Your task to perform on an android device: Open internet settings Image 0: 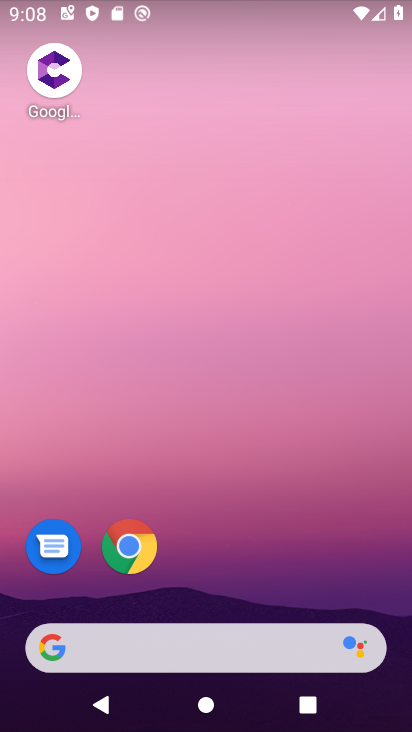
Step 0: drag from (207, 550) to (307, 90)
Your task to perform on an android device: Open internet settings Image 1: 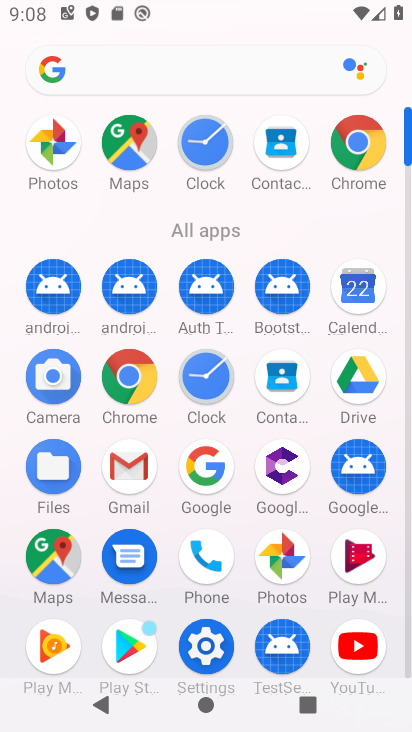
Step 1: click (208, 645)
Your task to perform on an android device: Open internet settings Image 2: 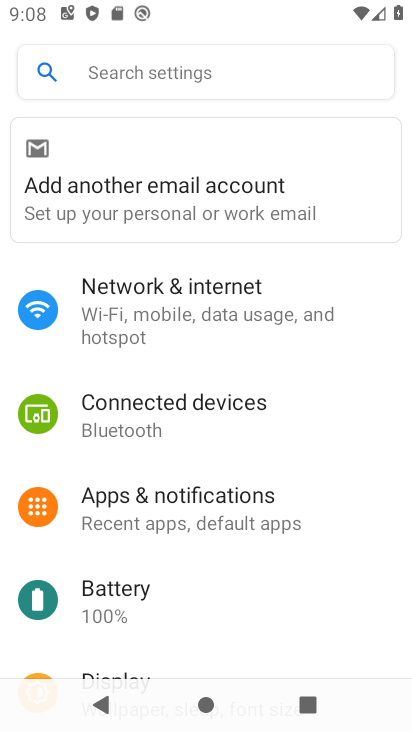
Step 2: click (127, 312)
Your task to perform on an android device: Open internet settings Image 3: 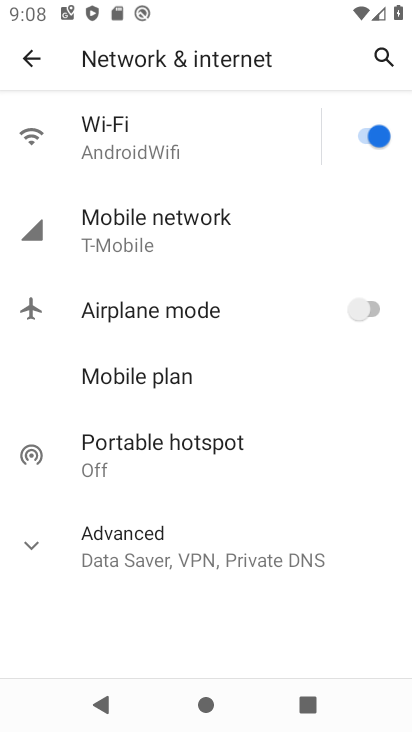
Step 3: task complete